Your task to perform on an android device: change timer sound Image 0: 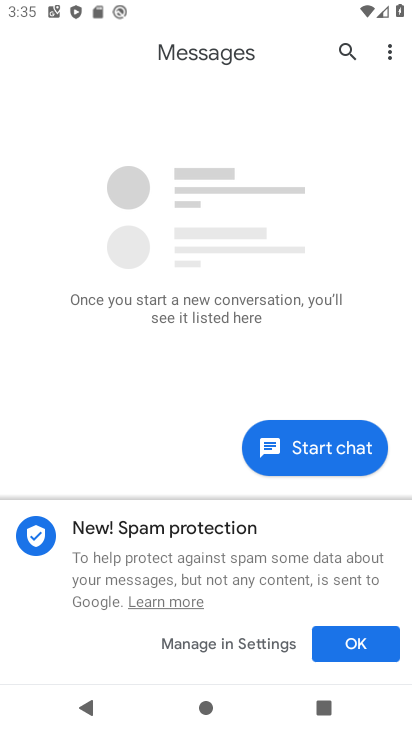
Step 0: press back button
Your task to perform on an android device: change timer sound Image 1: 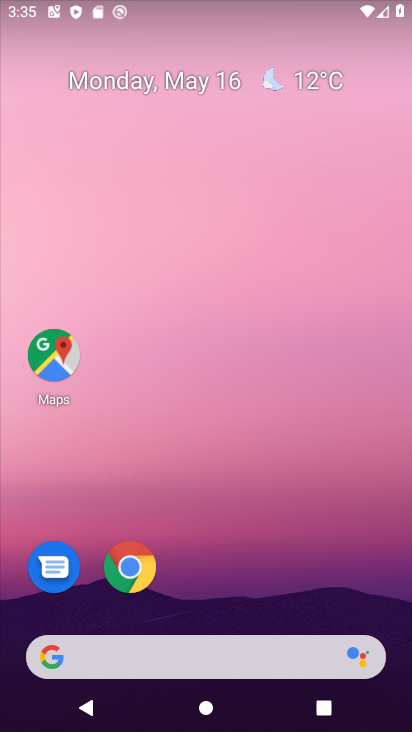
Step 1: drag from (197, 491) to (165, 28)
Your task to perform on an android device: change timer sound Image 2: 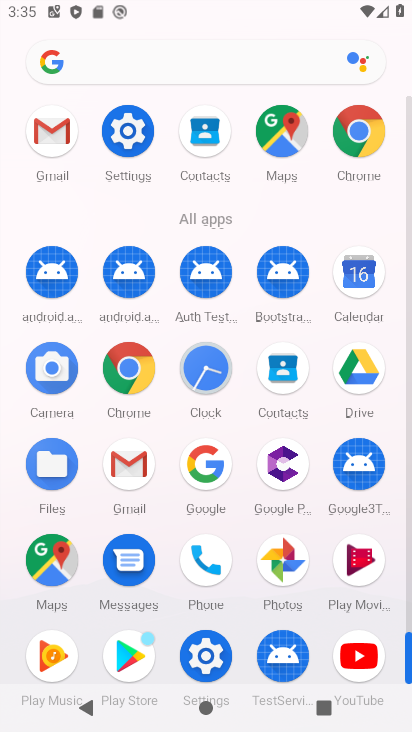
Step 2: drag from (17, 503) to (11, 220)
Your task to perform on an android device: change timer sound Image 3: 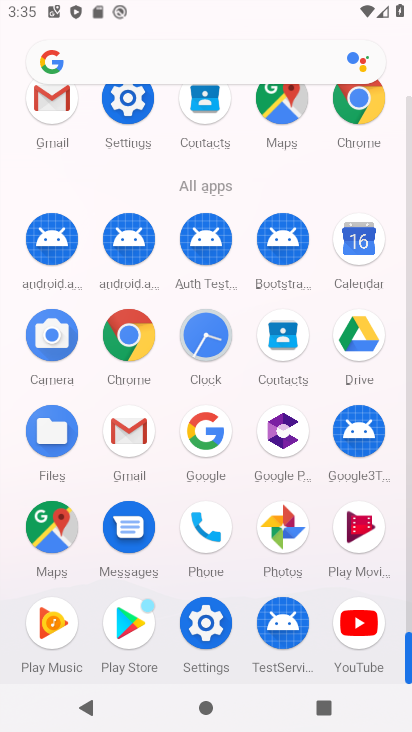
Step 3: click (202, 334)
Your task to perform on an android device: change timer sound Image 4: 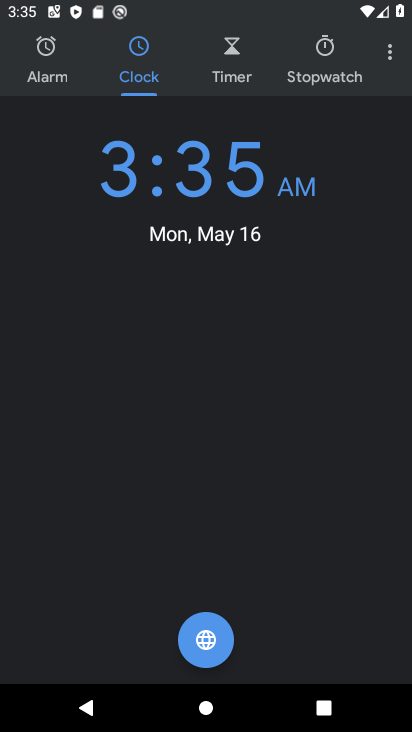
Step 4: drag from (387, 49) to (340, 102)
Your task to perform on an android device: change timer sound Image 5: 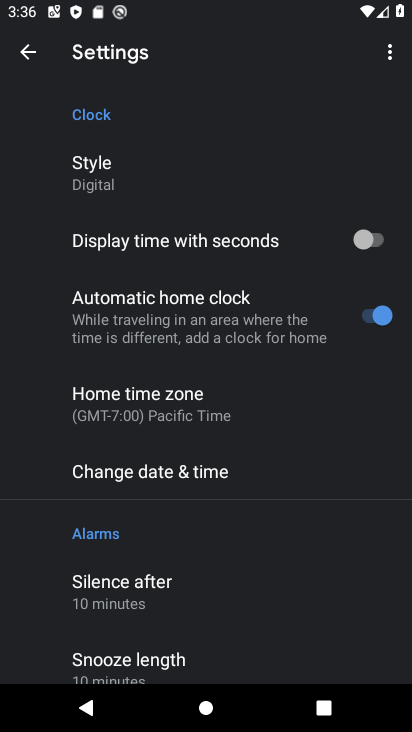
Step 5: drag from (186, 663) to (233, 340)
Your task to perform on an android device: change timer sound Image 6: 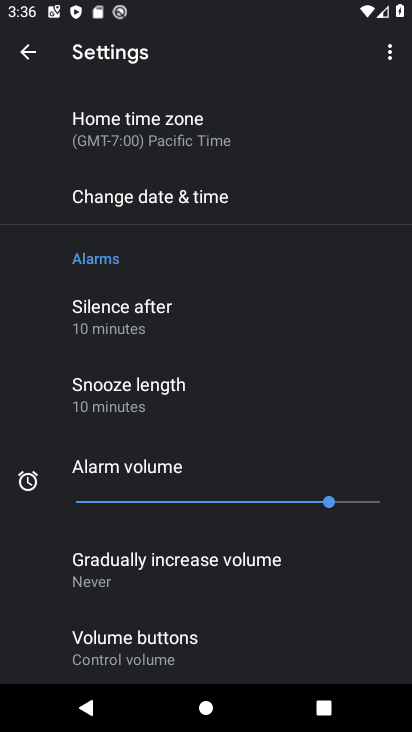
Step 6: drag from (220, 592) to (230, 196)
Your task to perform on an android device: change timer sound Image 7: 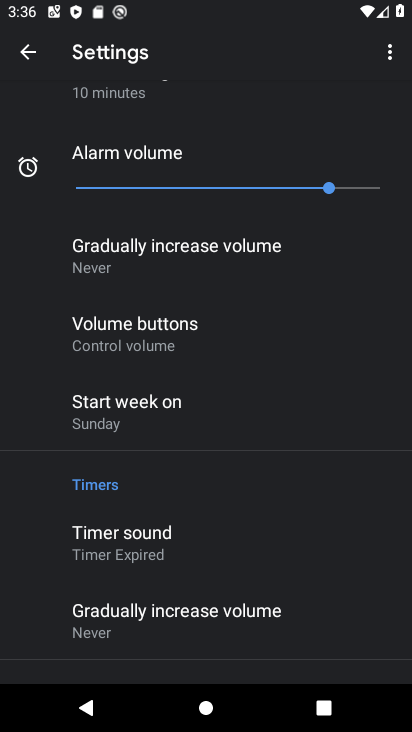
Step 7: click (152, 535)
Your task to perform on an android device: change timer sound Image 8: 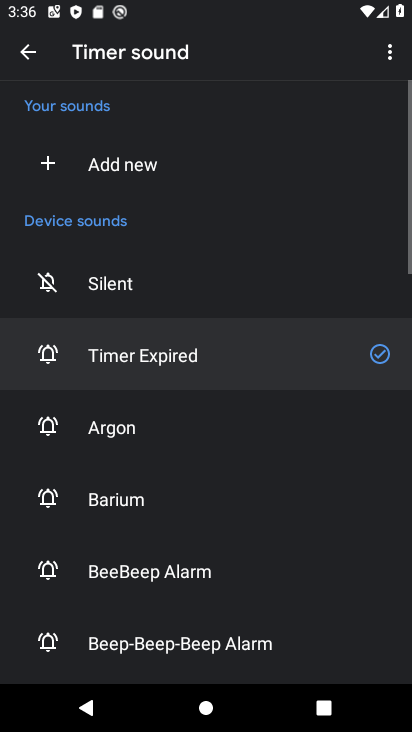
Step 8: click (169, 610)
Your task to perform on an android device: change timer sound Image 9: 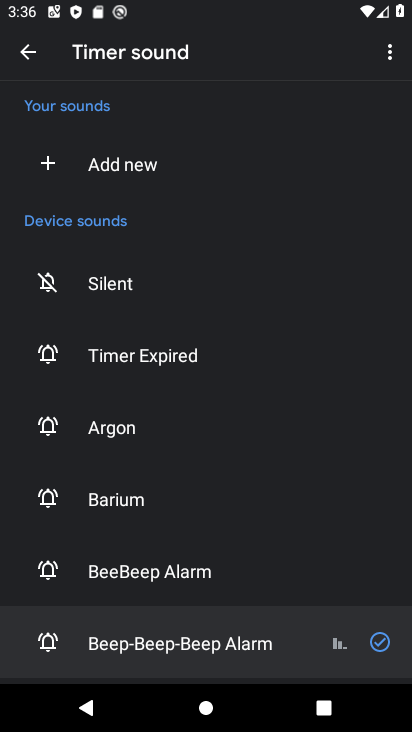
Step 9: task complete